Your task to perform on an android device: Open calendar and show me the fourth week of next month Image 0: 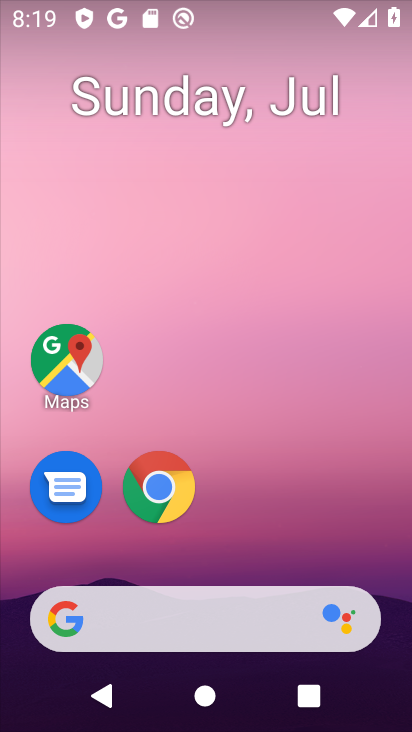
Step 0: drag from (275, 497) to (295, 11)
Your task to perform on an android device: Open calendar and show me the fourth week of next month Image 1: 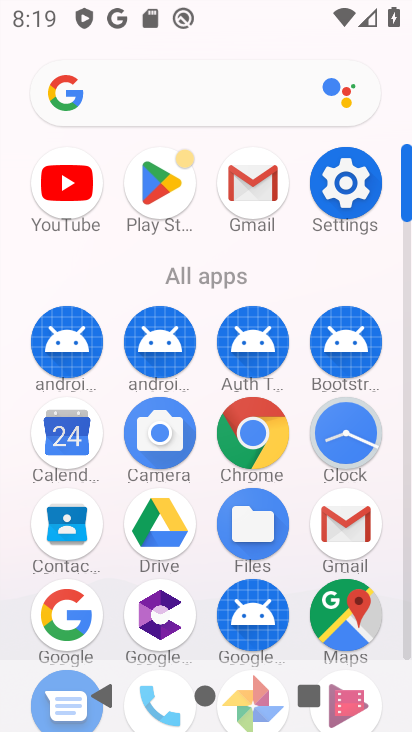
Step 1: click (54, 442)
Your task to perform on an android device: Open calendar and show me the fourth week of next month Image 2: 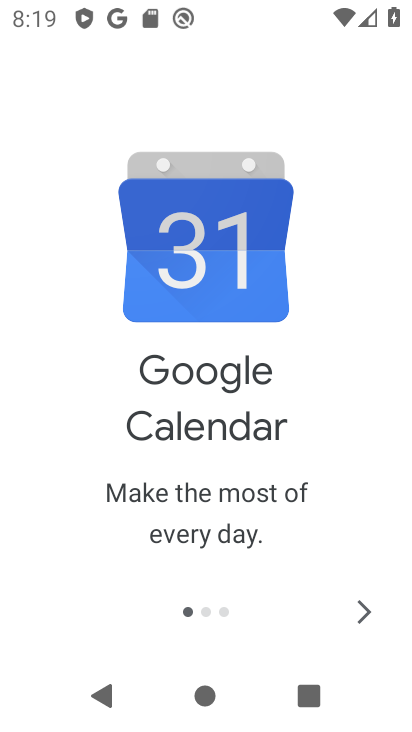
Step 2: click (372, 599)
Your task to perform on an android device: Open calendar and show me the fourth week of next month Image 3: 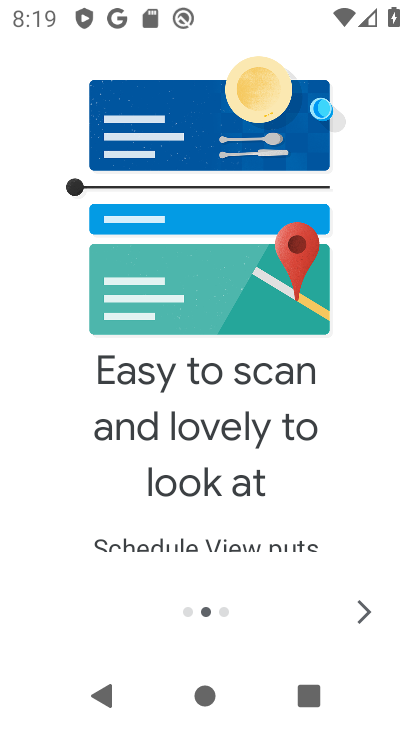
Step 3: click (372, 599)
Your task to perform on an android device: Open calendar and show me the fourth week of next month Image 4: 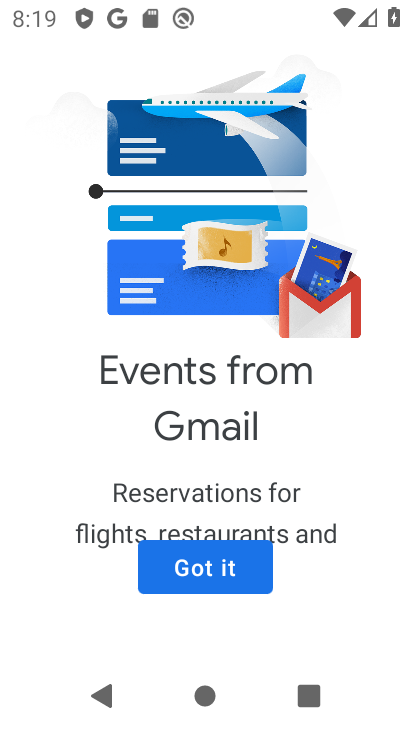
Step 4: click (227, 549)
Your task to perform on an android device: Open calendar and show me the fourth week of next month Image 5: 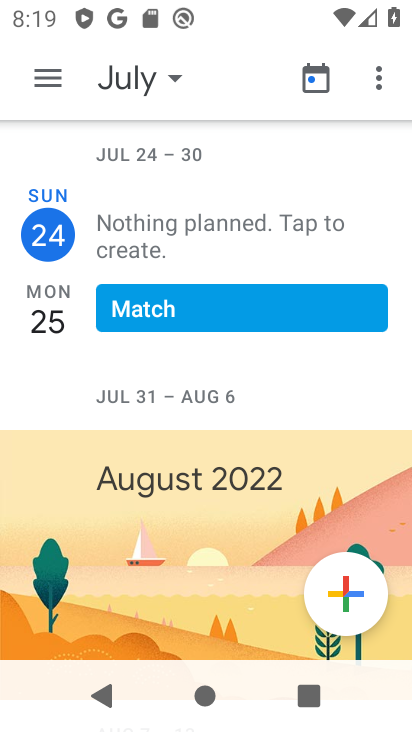
Step 5: click (159, 82)
Your task to perform on an android device: Open calendar and show me the fourth week of next month Image 6: 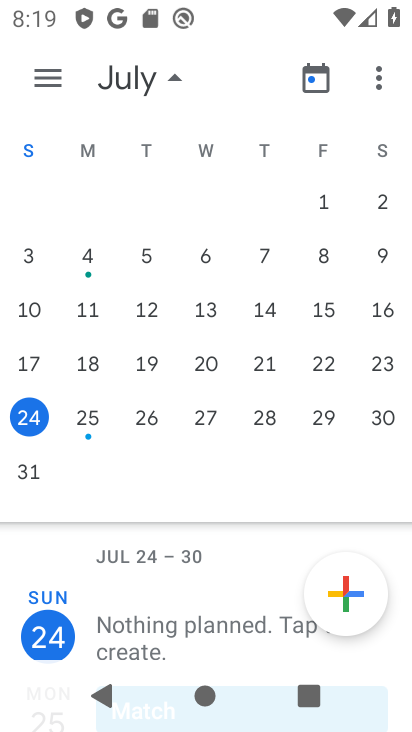
Step 6: drag from (373, 296) to (5, 315)
Your task to perform on an android device: Open calendar and show me the fourth week of next month Image 7: 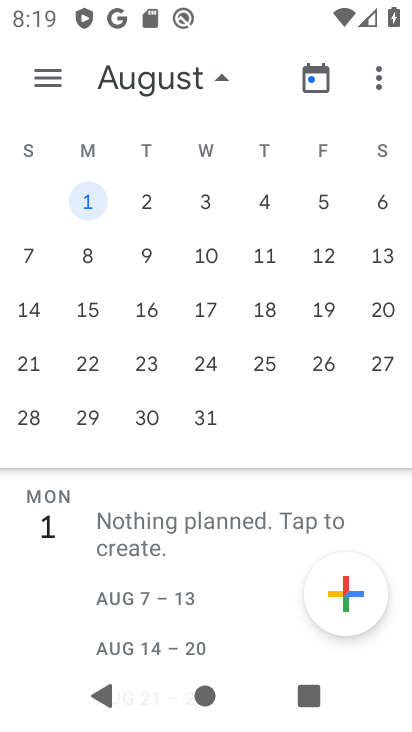
Step 7: drag from (360, 335) to (324, 328)
Your task to perform on an android device: Open calendar and show me the fourth week of next month Image 8: 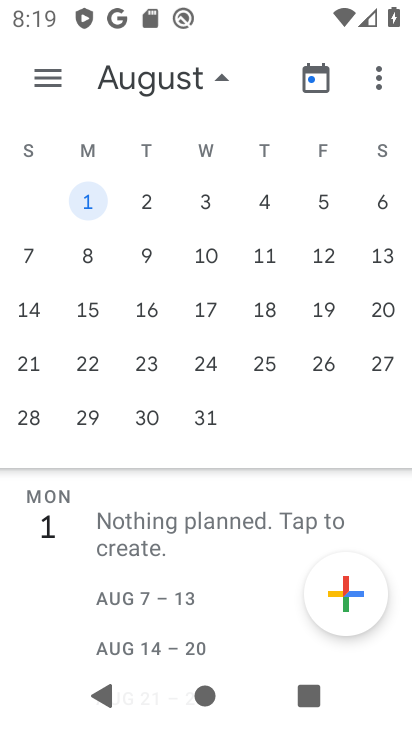
Step 8: click (93, 369)
Your task to perform on an android device: Open calendar and show me the fourth week of next month Image 9: 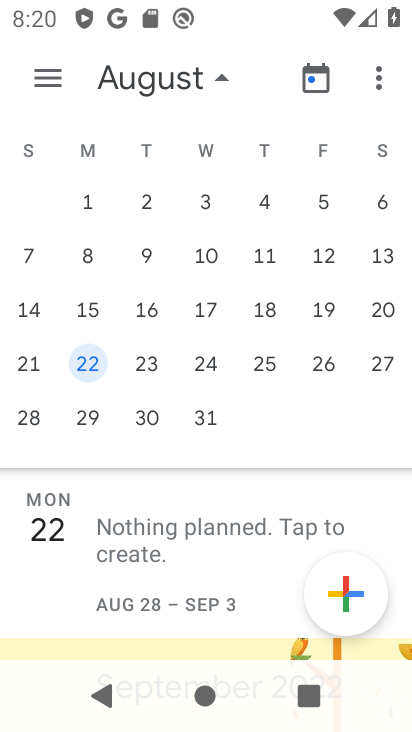
Step 9: task complete